Your task to perform on an android device: manage bookmarks in the chrome app Image 0: 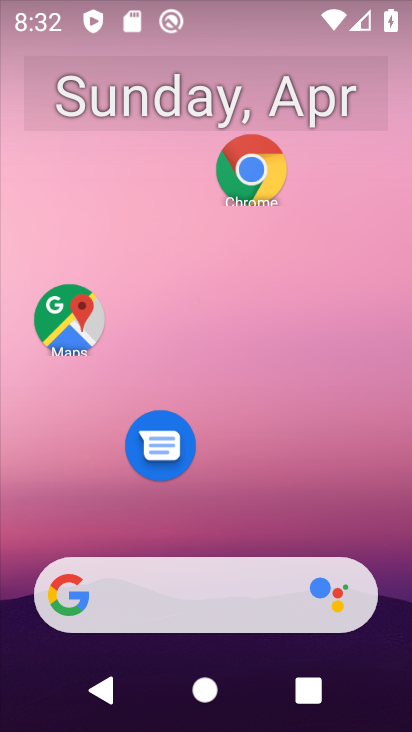
Step 0: click (263, 171)
Your task to perform on an android device: manage bookmarks in the chrome app Image 1: 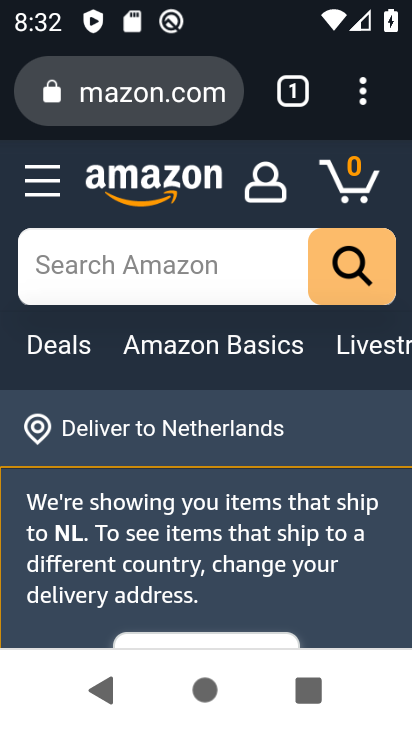
Step 1: click (362, 104)
Your task to perform on an android device: manage bookmarks in the chrome app Image 2: 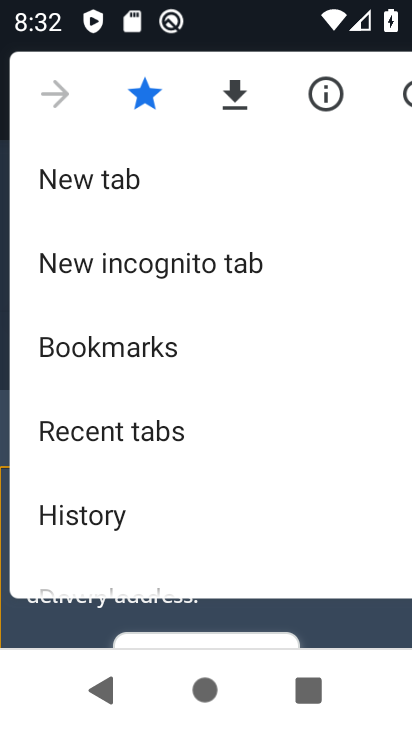
Step 2: click (209, 357)
Your task to perform on an android device: manage bookmarks in the chrome app Image 3: 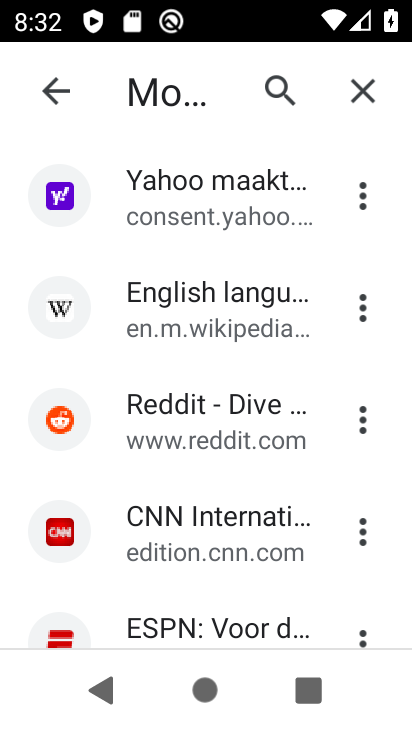
Step 3: click (363, 423)
Your task to perform on an android device: manage bookmarks in the chrome app Image 4: 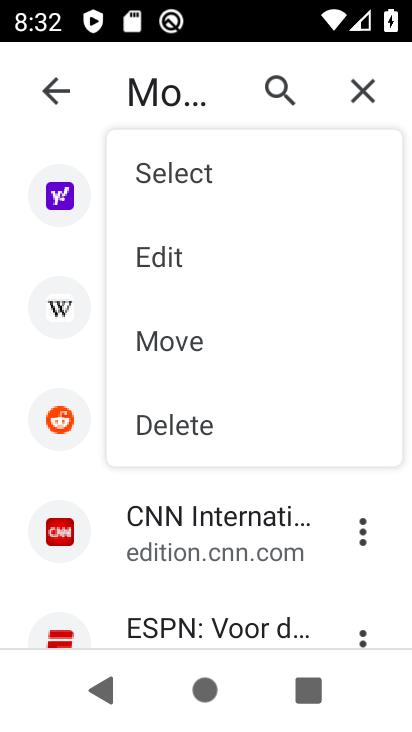
Step 4: click (196, 428)
Your task to perform on an android device: manage bookmarks in the chrome app Image 5: 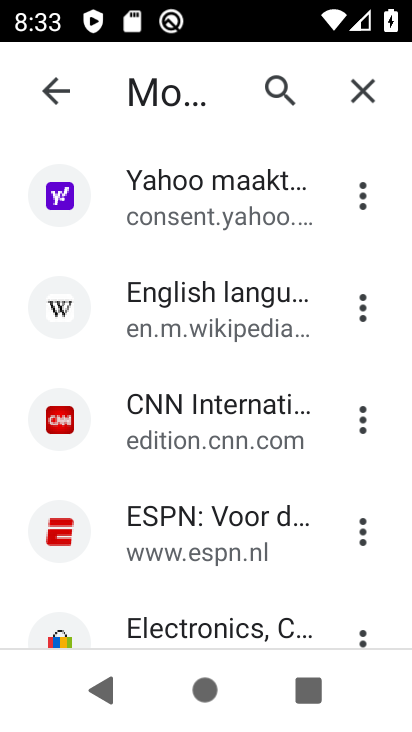
Step 5: task complete